Your task to perform on an android device: set the stopwatch Image 0: 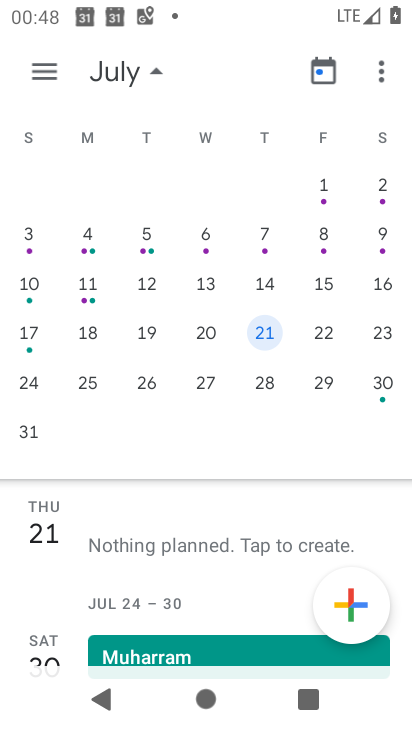
Step 0: press home button
Your task to perform on an android device: set the stopwatch Image 1: 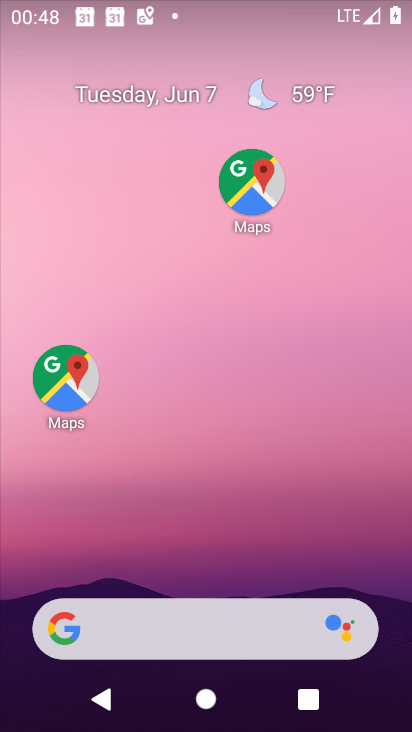
Step 1: drag from (220, 489) to (172, 50)
Your task to perform on an android device: set the stopwatch Image 2: 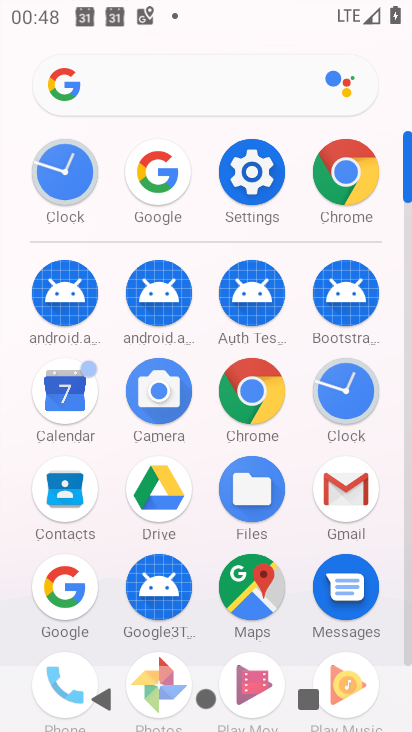
Step 2: click (336, 392)
Your task to perform on an android device: set the stopwatch Image 3: 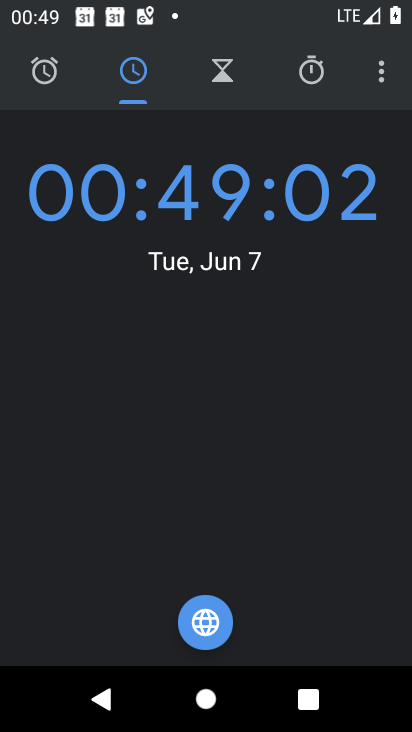
Step 3: click (303, 65)
Your task to perform on an android device: set the stopwatch Image 4: 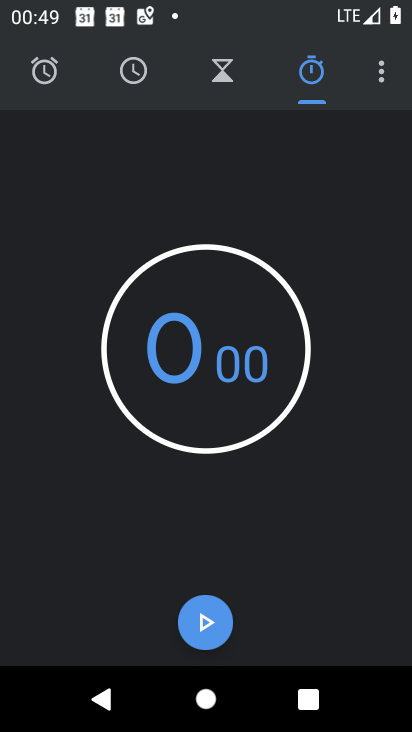
Step 4: click (214, 624)
Your task to perform on an android device: set the stopwatch Image 5: 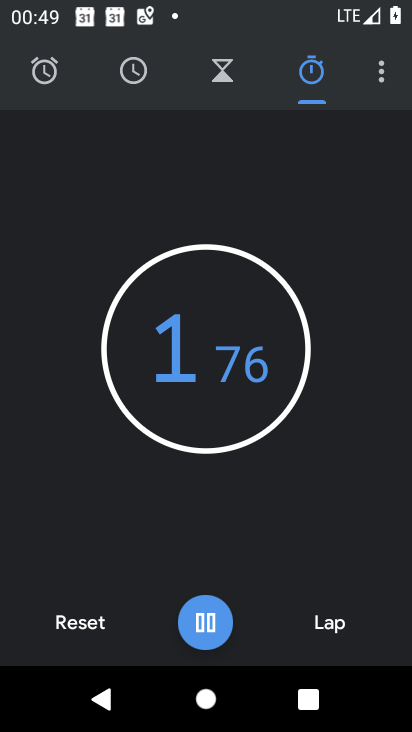
Step 5: click (206, 621)
Your task to perform on an android device: set the stopwatch Image 6: 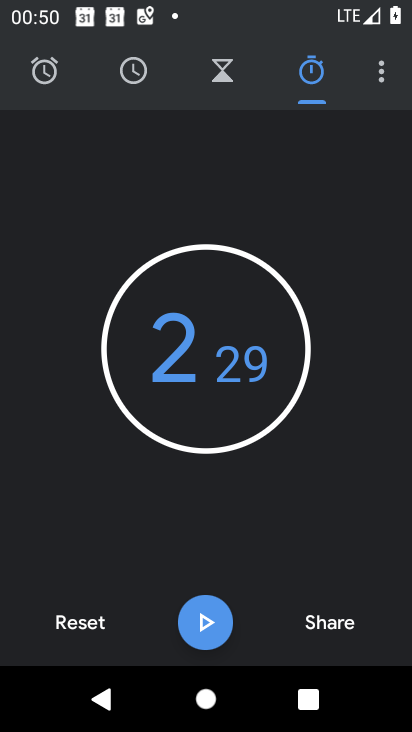
Step 6: task complete